Your task to perform on an android device: toggle javascript in the chrome app Image 0: 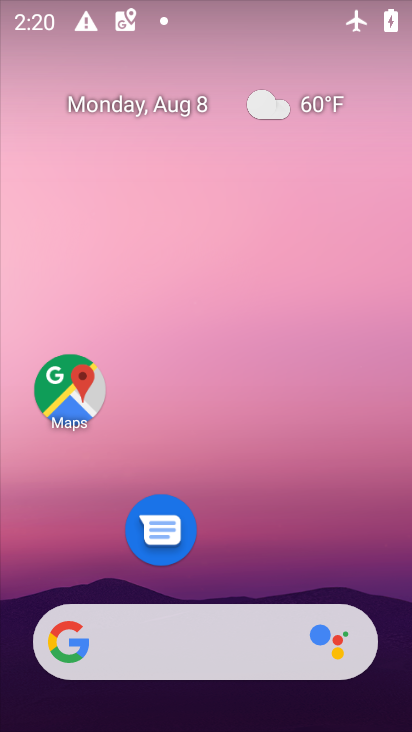
Step 0: drag from (222, 594) to (188, 42)
Your task to perform on an android device: toggle javascript in the chrome app Image 1: 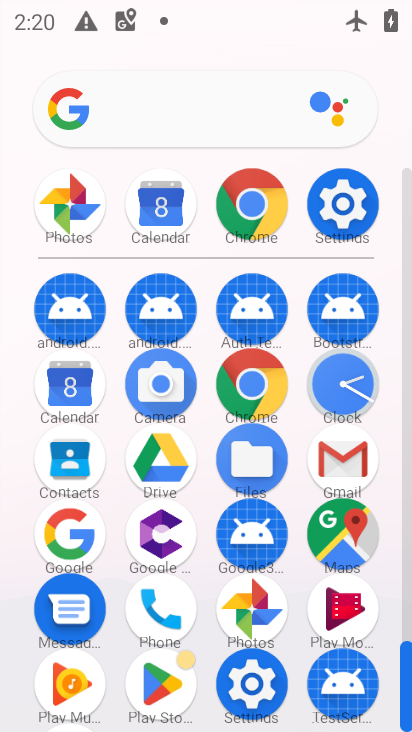
Step 1: click (254, 382)
Your task to perform on an android device: toggle javascript in the chrome app Image 2: 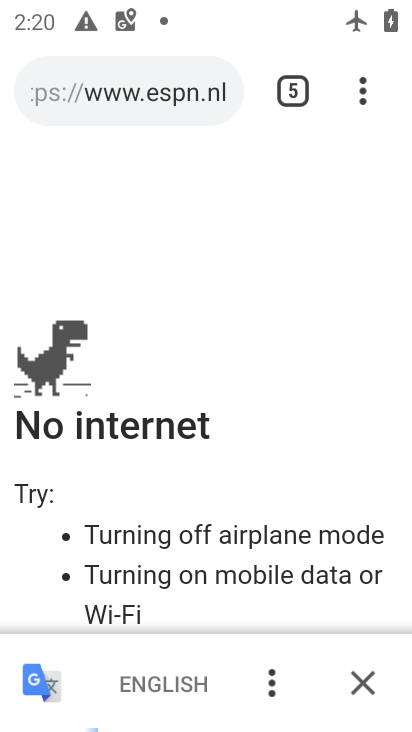
Step 2: drag from (363, 99) to (187, 575)
Your task to perform on an android device: toggle javascript in the chrome app Image 3: 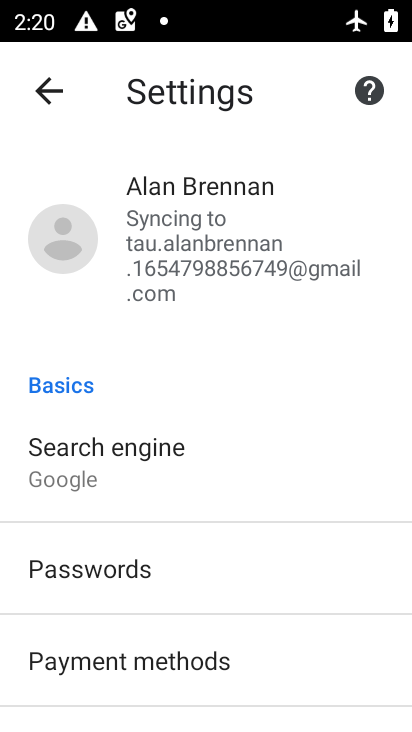
Step 3: drag from (110, 680) to (103, 330)
Your task to perform on an android device: toggle javascript in the chrome app Image 4: 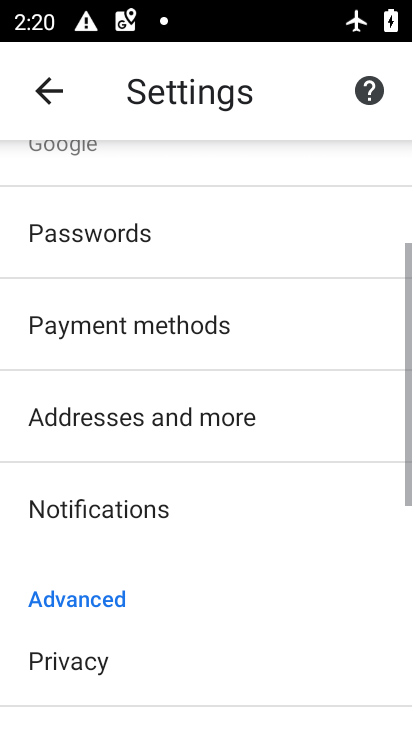
Step 4: drag from (122, 636) to (119, 334)
Your task to perform on an android device: toggle javascript in the chrome app Image 5: 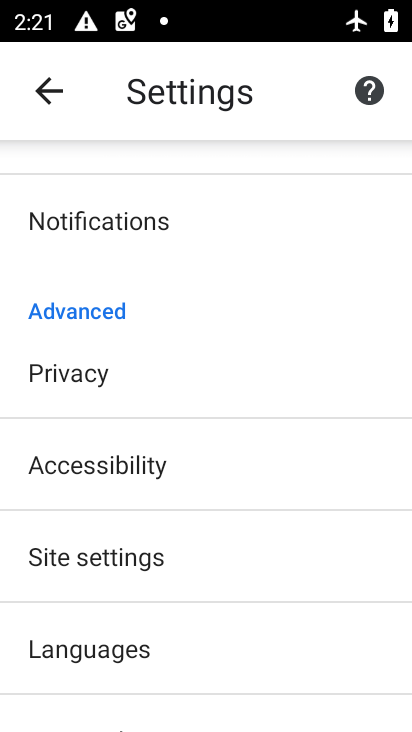
Step 5: click (150, 555)
Your task to perform on an android device: toggle javascript in the chrome app Image 6: 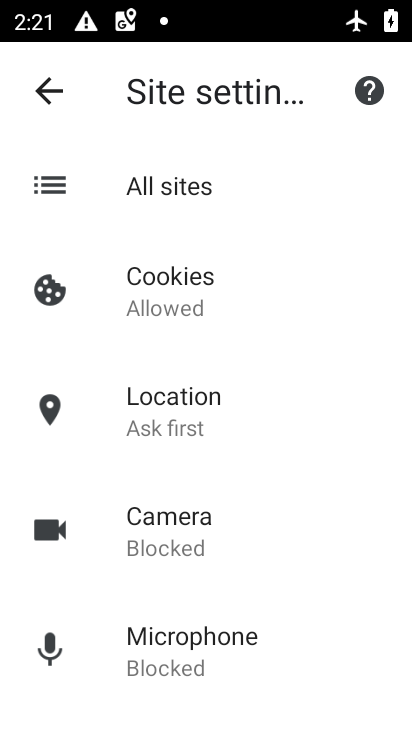
Step 6: drag from (157, 658) to (171, 224)
Your task to perform on an android device: toggle javascript in the chrome app Image 7: 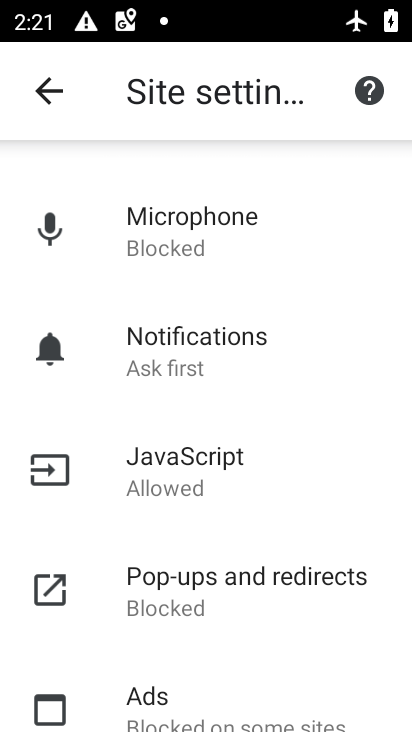
Step 7: click (186, 458)
Your task to perform on an android device: toggle javascript in the chrome app Image 8: 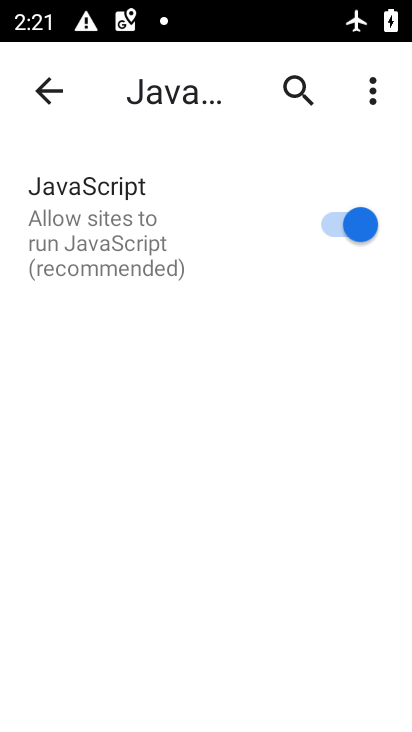
Step 8: click (328, 228)
Your task to perform on an android device: toggle javascript in the chrome app Image 9: 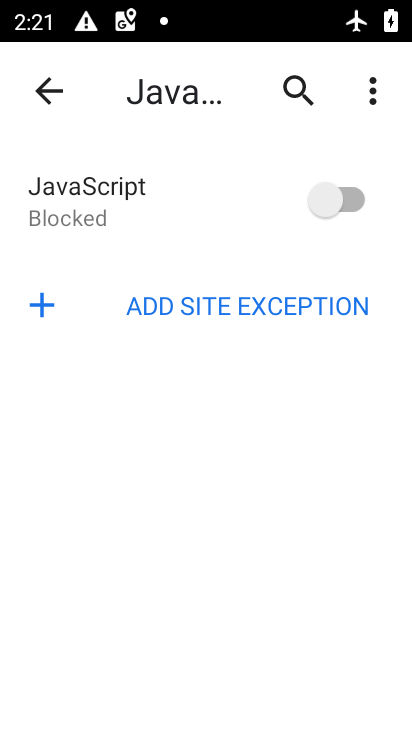
Step 9: task complete